Your task to perform on an android device: Open Yahoo.com Image 0: 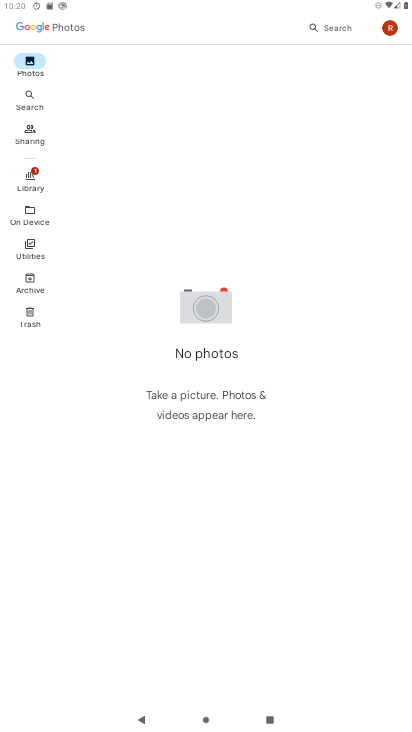
Step 0: press home button
Your task to perform on an android device: Open Yahoo.com Image 1: 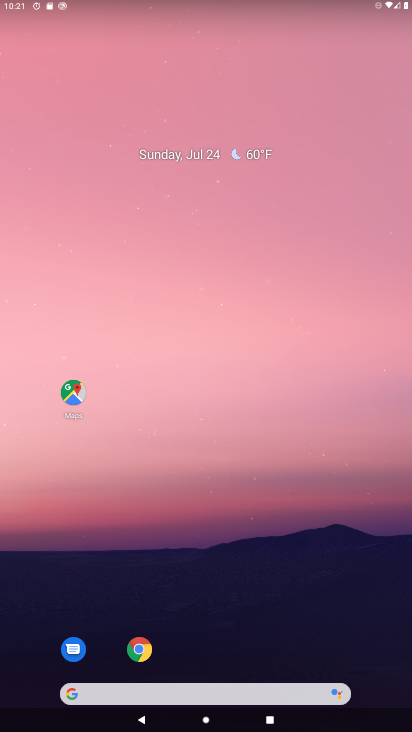
Step 1: drag from (302, 588) to (209, 43)
Your task to perform on an android device: Open Yahoo.com Image 2: 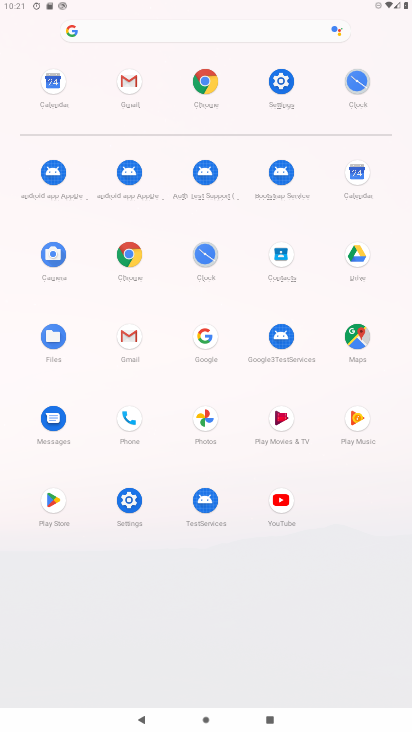
Step 2: click (126, 254)
Your task to perform on an android device: Open Yahoo.com Image 3: 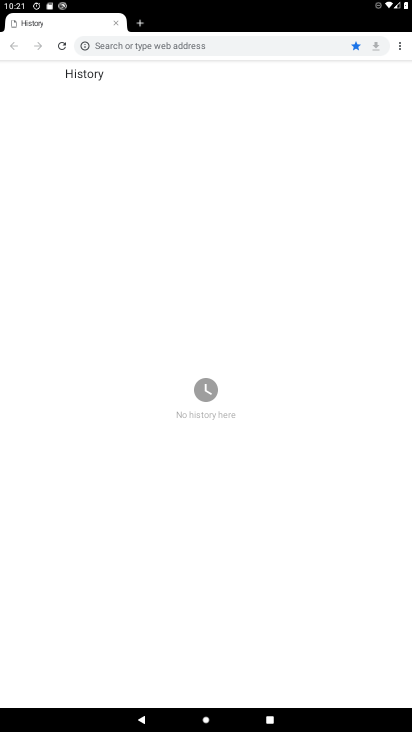
Step 3: click (174, 47)
Your task to perform on an android device: Open Yahoo.com Image 4: 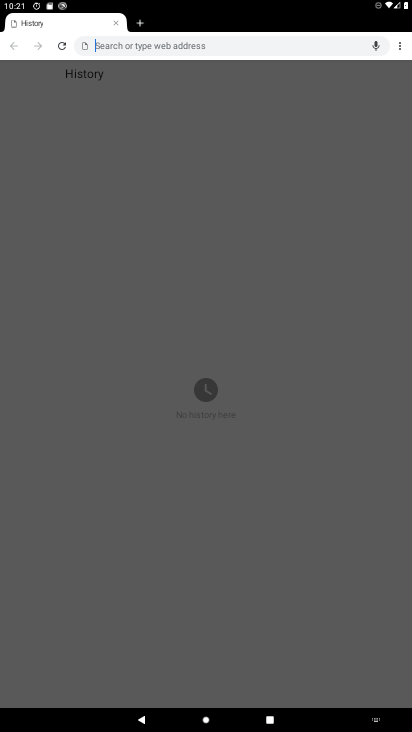
Step 4: type "yahoo.com"
Your task to perform on an android device: Open Yahoo.com Image 5: 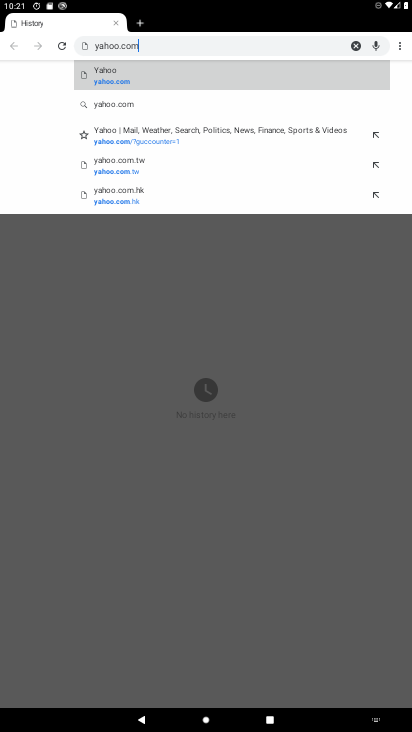
Step 5: click (157, 76)
Your task to perform on an android device: Open Yahoo.com Image 6: 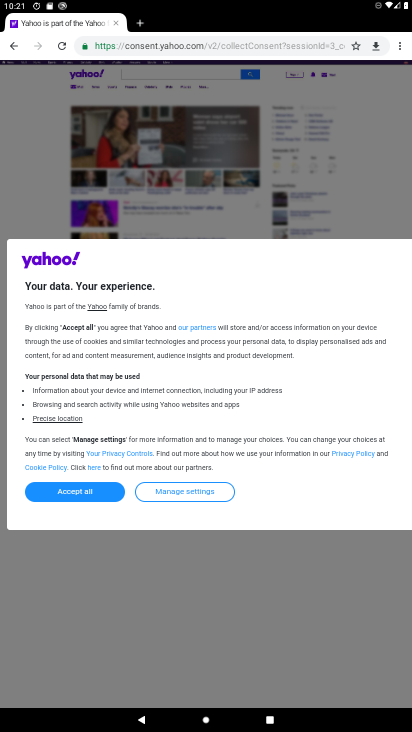
Step 6: task complete